Your task to perform on an android device: Go to eBay Image 0: 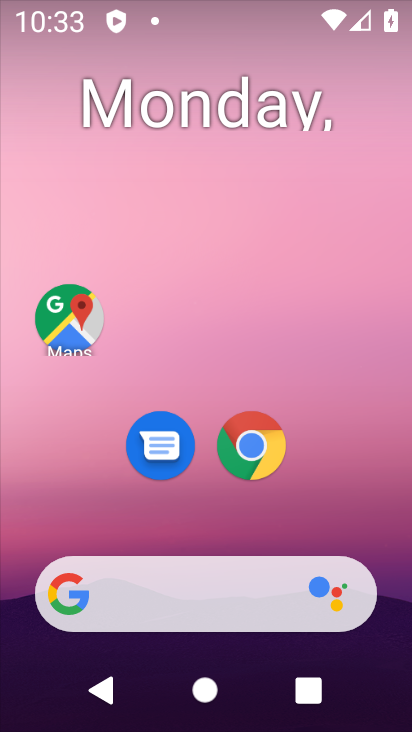
Step 0: click (259, 444)
Your task to perform on an android device: Go to eBay Image 1: 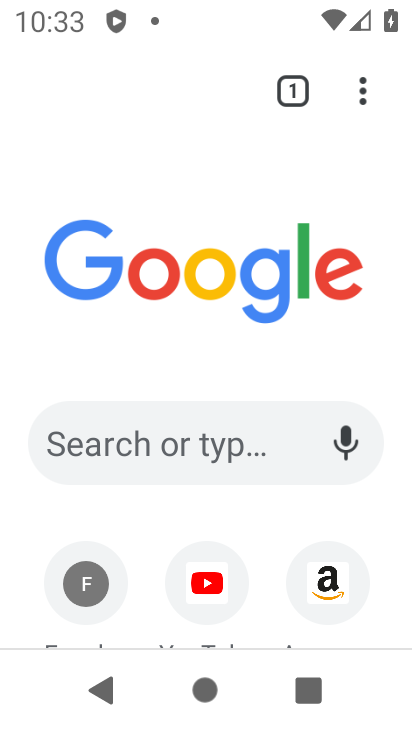
Step 1: click (215, 445)
Your task to perform on an android device: Go to eBay Image 2: 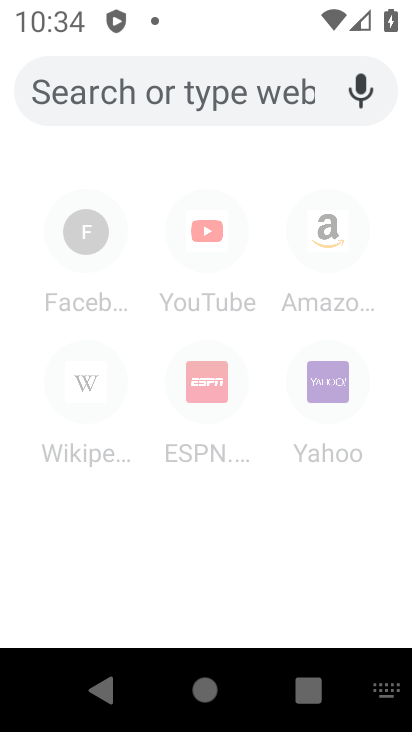
Step 2: type "eBay"
Your task to perform on an android device: Go to eBay Image 3: 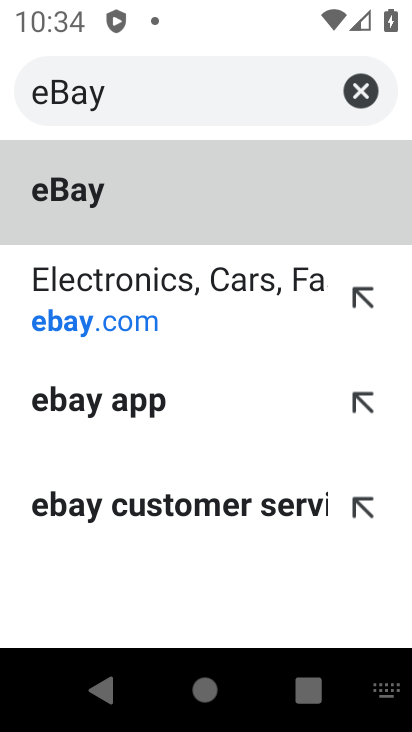
Step 3: click (168, 273)
Your task to perform on an android device: Go to eBay Image 4: 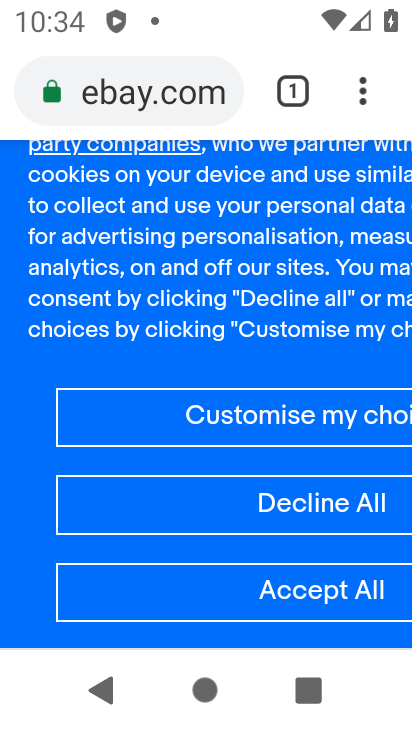
Step 4: click (328, 599)
Your task to perform on an android device: Go to eBay Image 5: 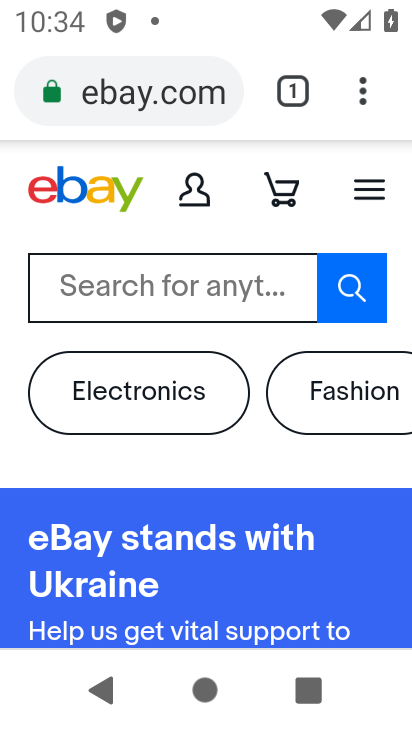
Step 5: drag from (221, 600) to (202, 218)
Your task to perform on an android device: Go to eBay Image 6: 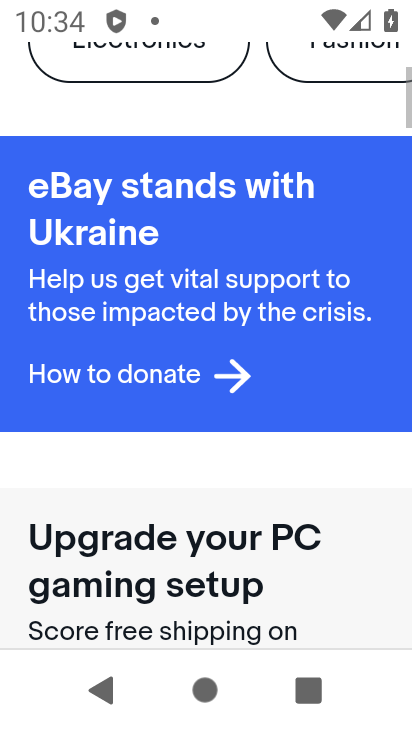
Step 6: click (201, 214)
Your task to perform on an android device: Go to eBay Image 7: 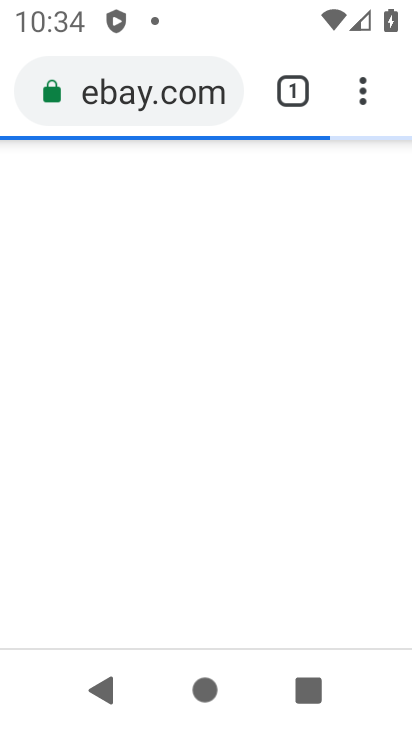
Step 7: task complete